Your task to perform on an android device: see creations saved in the google photos Image 0: 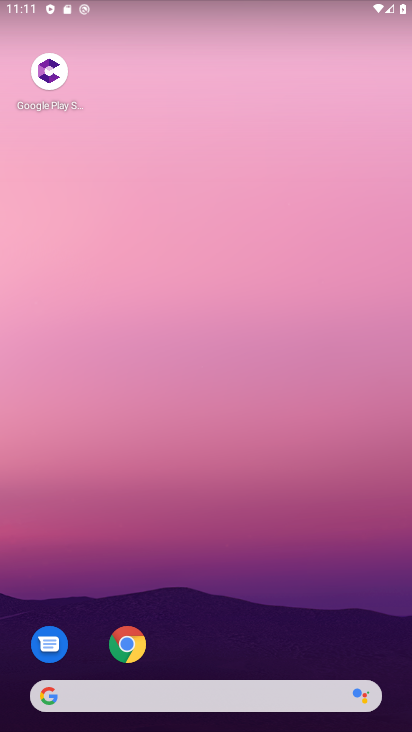
Step 0: drag from (243, 661) to (269, 275)
Your task to perform on an android device: see creations saved in the google photos Image 1: 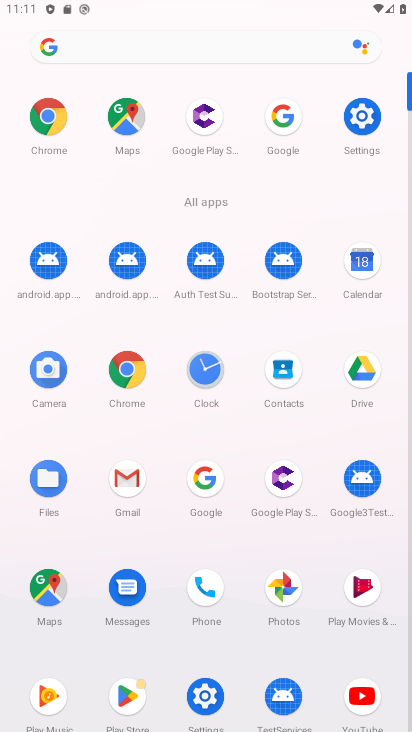
Step 1: click (283, 590)
Your task to perform on an android device: see creations saved in the google photos Image 2: 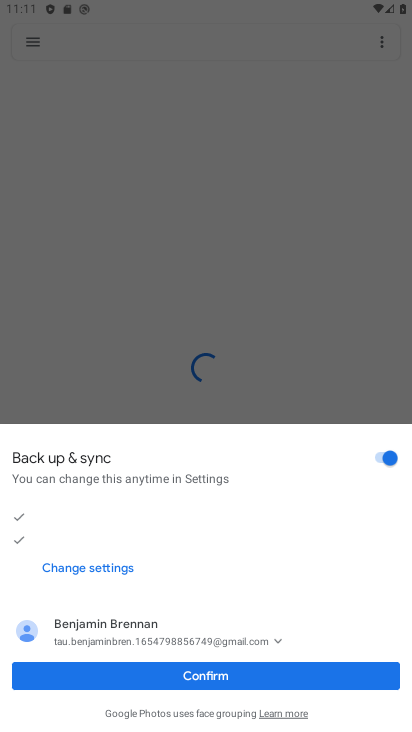
Step 2: click (193, 667)
Your task to perform on an android device: see creations saved in the google photos Image 3: 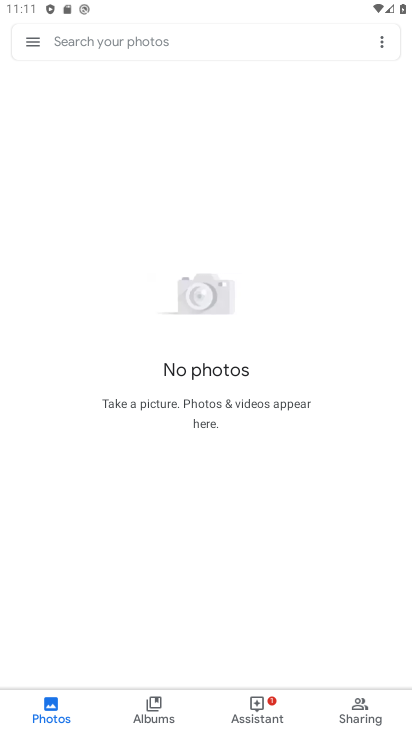
Step 3: click (213, 39)
Your task to perform on an android device: see creations saved in the google photos Image 4: 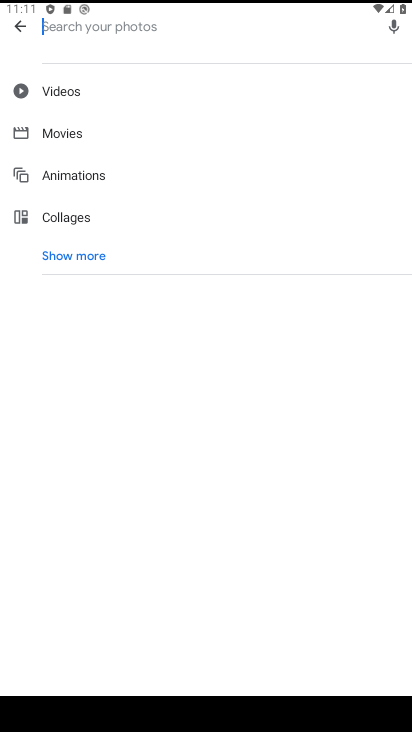
Step 4: click (62, 259)
Your task to perform on an android device: see creations saved in the google photos Image 5: 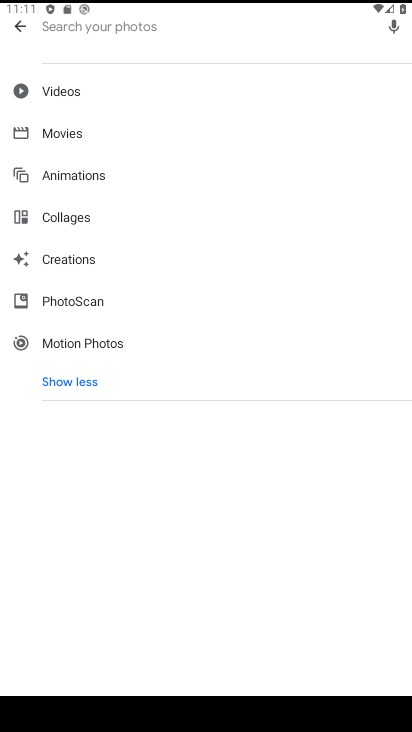
Step 5: click (92, 253)
Your task to perform on an android device: see creations saved in the google photos Image 6: 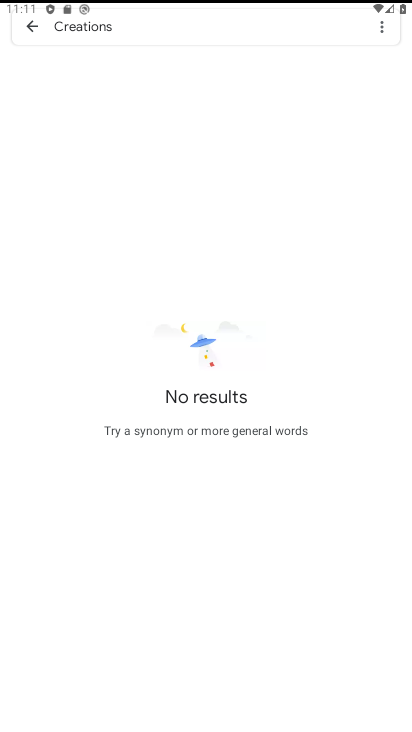
Step 6: task complete